Your task to perform on an android device: turn on notifications settings in the gmail app Image 0: 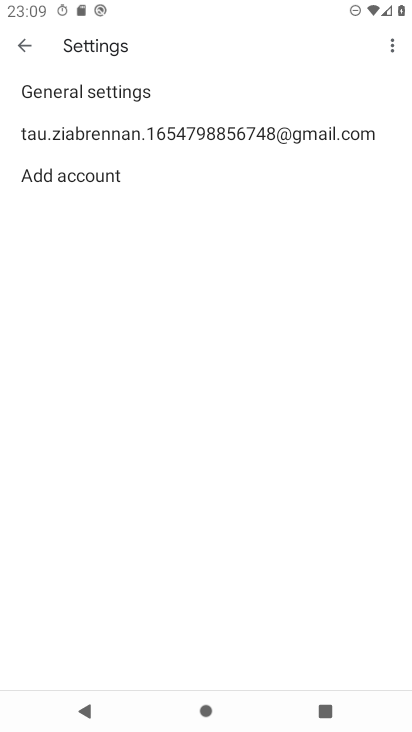
Step 0: press home button
Your task to perform on an android device: turn on notifications settings in the gmail app Image 1: 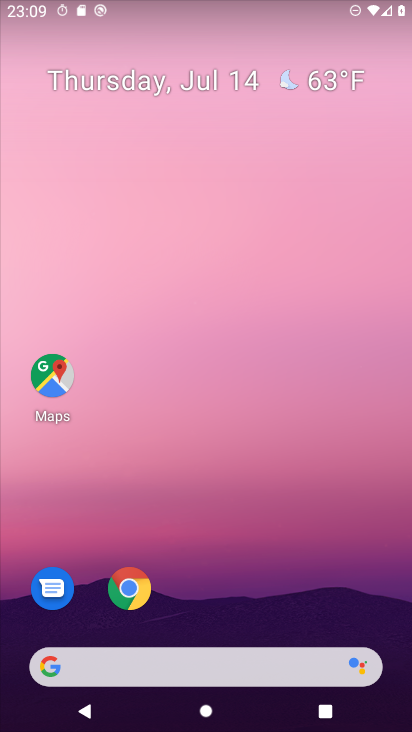
Step 1: drag from (303, 504) to (338, 51)
Your task to perform on an android device: turn on notifications settings in the gmail app Image 2: 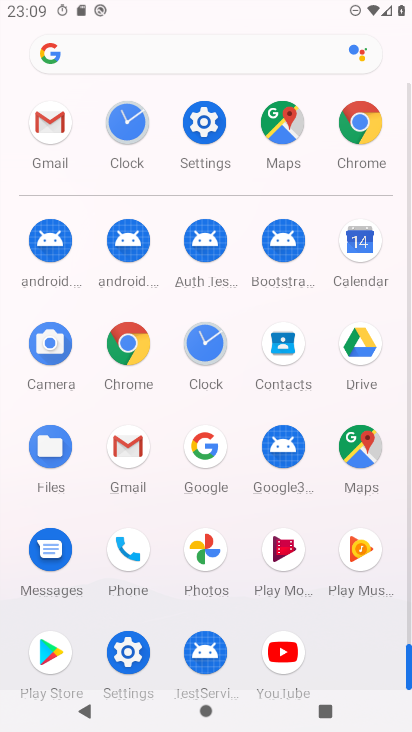
Step 2: click (55, 134)
Your task to perform on an android device: turn on notifications settings in the gmail app Image 3: 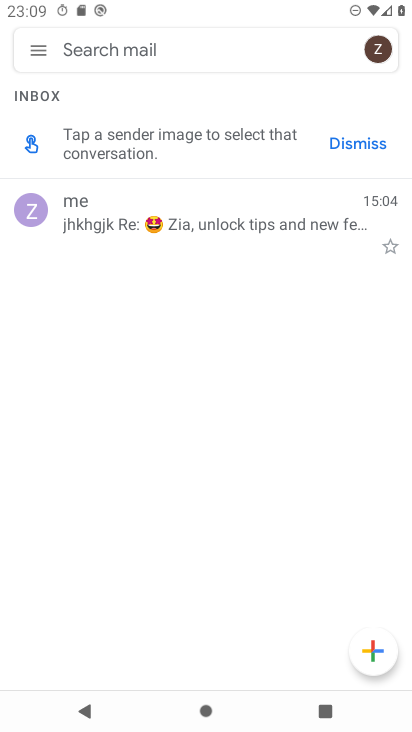
Step 3: click (41, 47)
Your task to perform on an android device: turn on notifications settings in the gmail app Image 4: 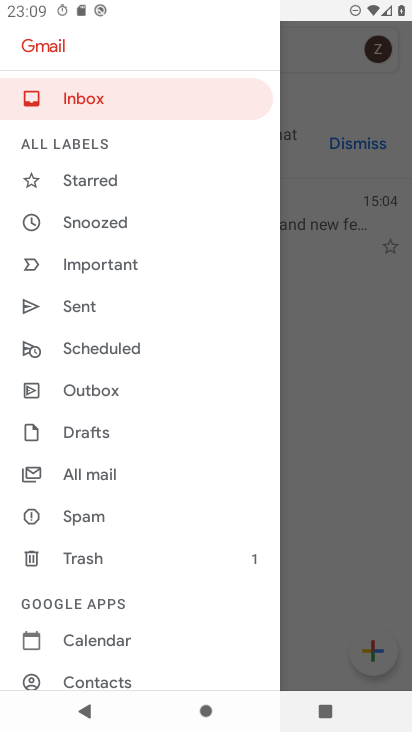
Step 4: drag from (192, 329) to (201, 263)
Your task to perform on an android device: turn on notifications settings in the gmail app Image 5: 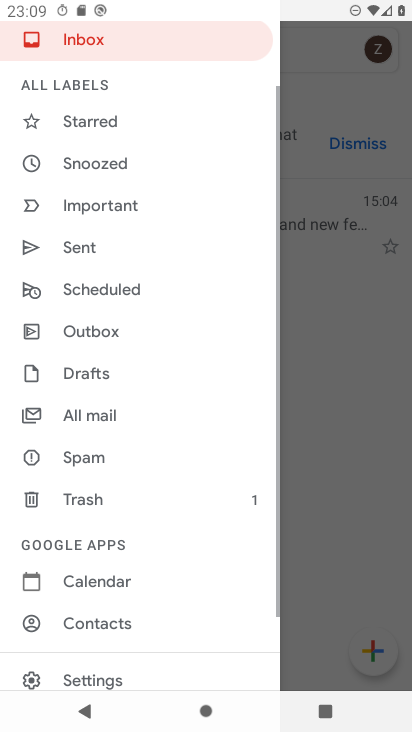
Step 5: drag from (197, 398) to (200, 177)
Your task to perform on an android device: turn on notifications settings in the gmail app Image 6: 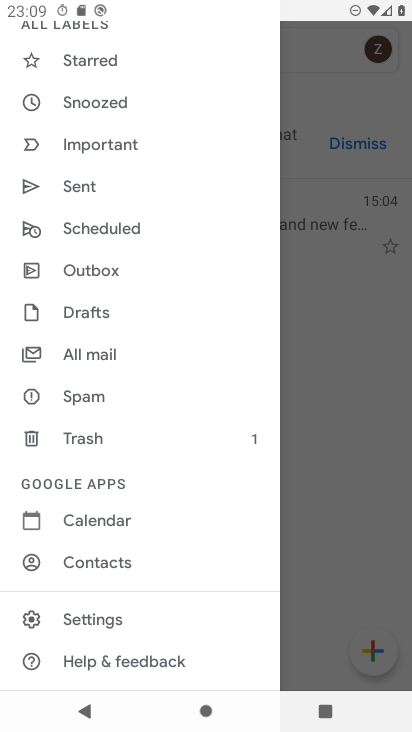
Step 6: click (126, 618)
Your task to perform on an android device: turn on notifications settings in the gmail app Image 7: 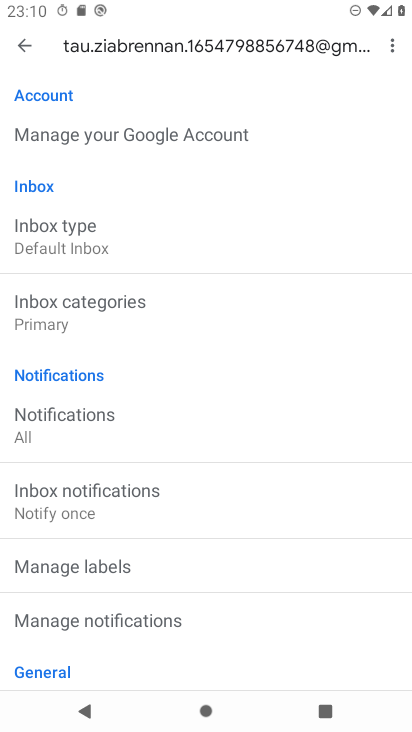
Step 7: click (199, 620)
Your task to perform on an android device: turn on notifications settings in the gmail app Image 8: 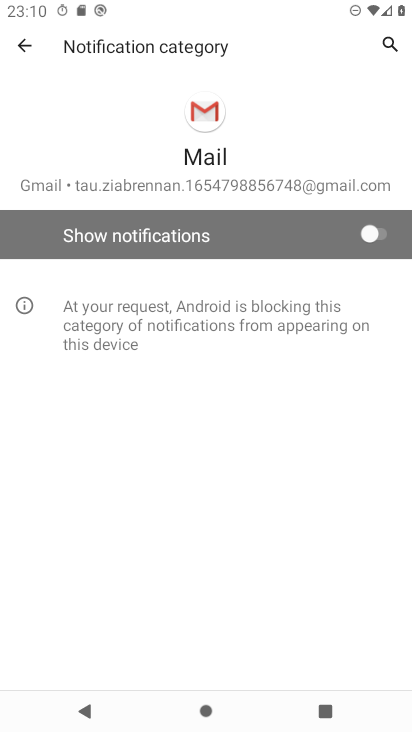
Step 8: click (199, 620)
Your task to perform on an android device: turn on notifications settings in the gmail app Image 9: 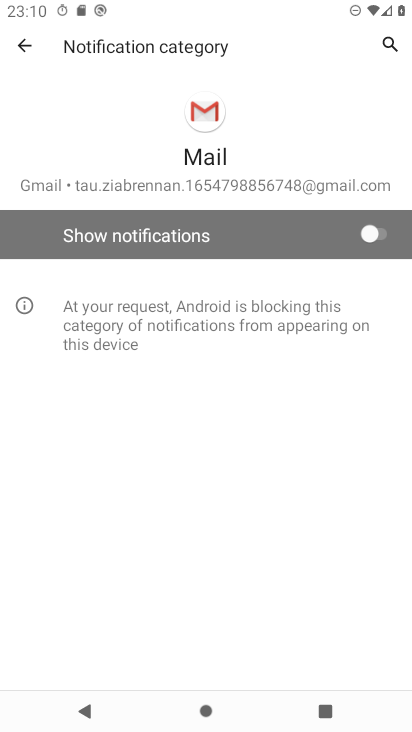
Step 9: click (366, 236)
Your task to perform on an android device: turn on notifications settings in the gmail app Image 10: 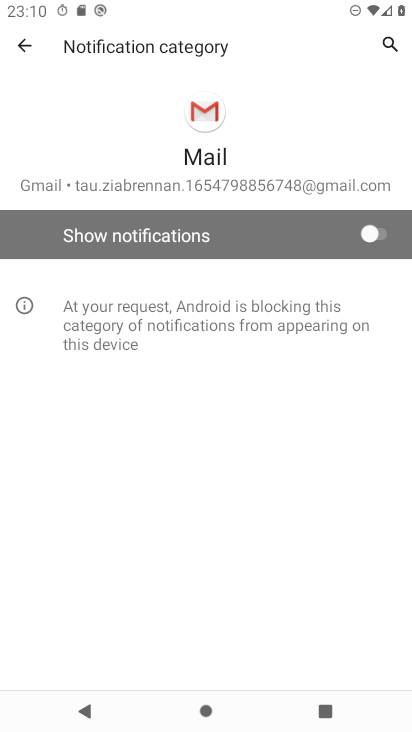
Step 10: task complete